Your task to perform on an android device: turn off location Image 0: 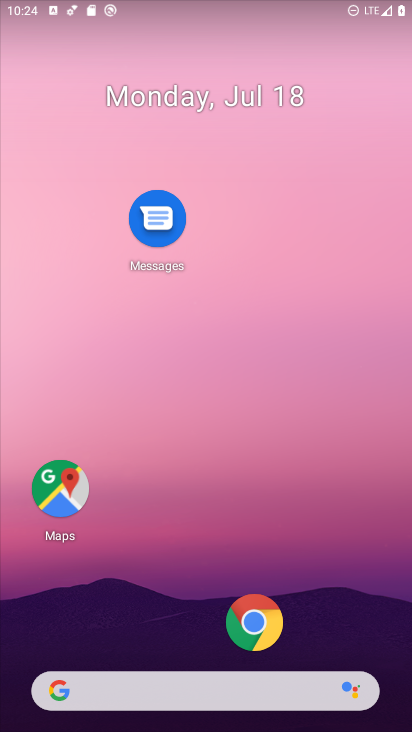
Step 0: drag from (172, 671) to (209, 178)
Your task to perform on an android device: turn off location Image 1: 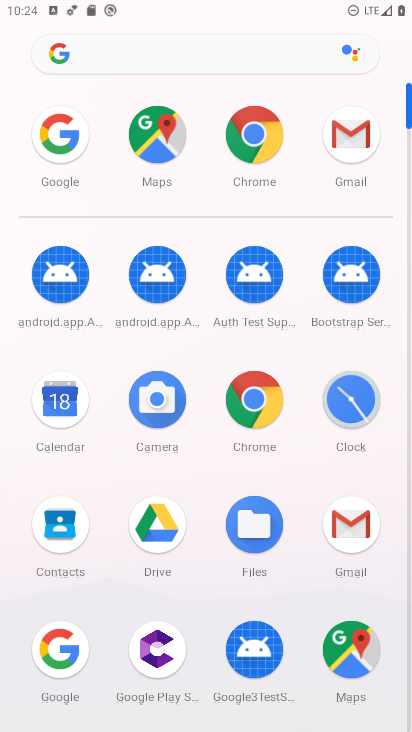
Step 1: drag from (199, 473) to (236, 151)
Your task to perform on an android device: turn off location Image 2: 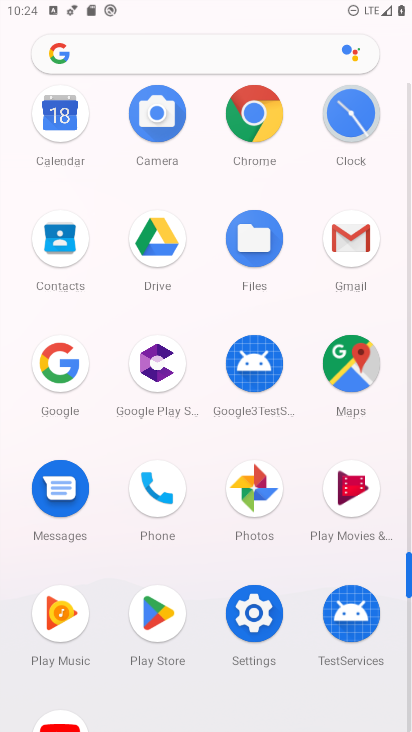
Step 2: click (250, 639)
Your task to perform on an android device: turn off location Image 3: 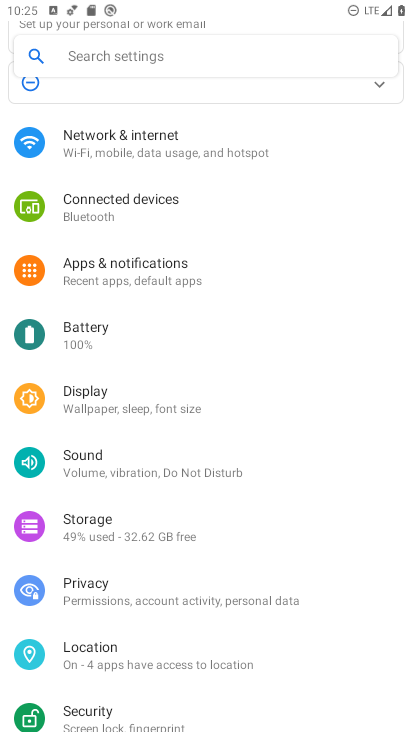
Step 3: drag from (182, 485) to (200, 200)
Your task to perform on an android device: turn off location Image 4: 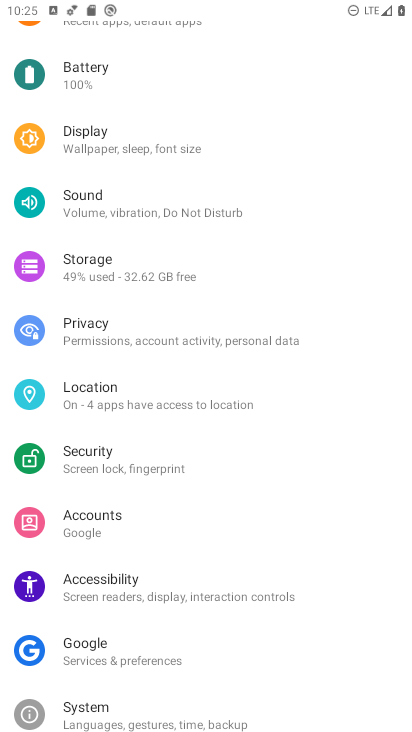
Step 4: click (132, 408)
Your task to perform on an android device: turn off location Image 5: 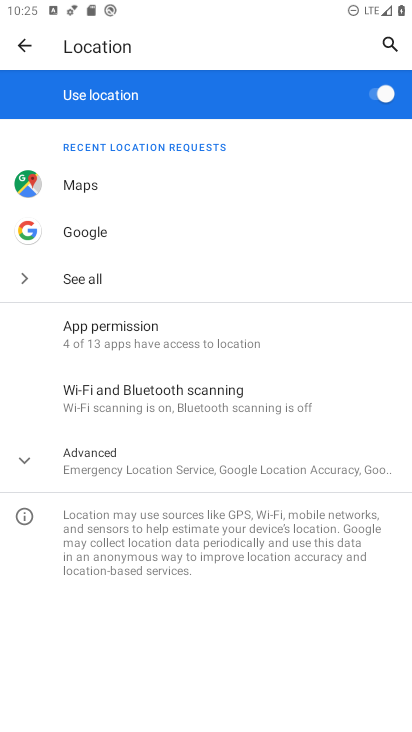
Step 5: click (178, 463)
Your task to perform on an android device: turn off location Image 6: 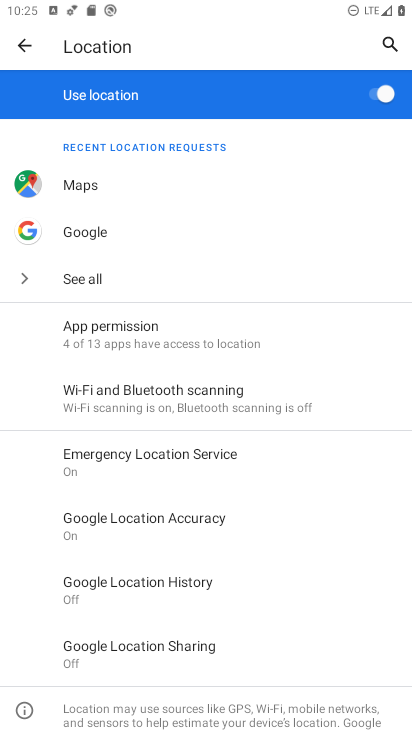
Step 6: click (265, 87)
Your task to perform on an android device: turn off location Image 7: 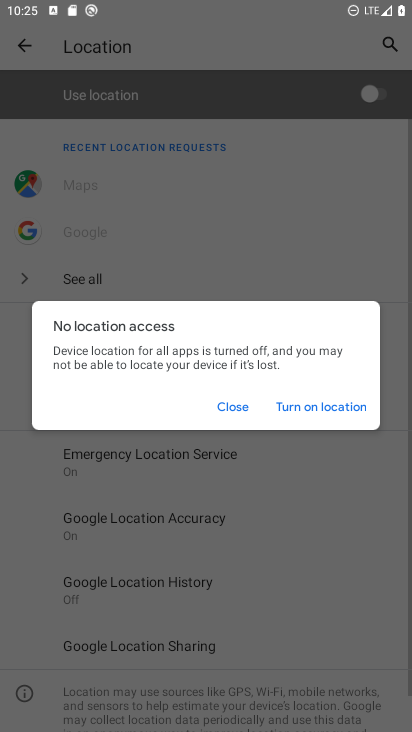
Step 7: task complete